Your task to perform on an android device: turn smart compose on in the gmail app Image 0: 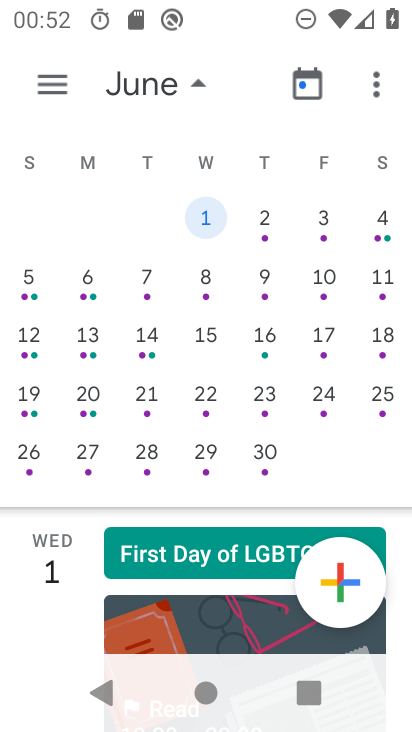
Step 0: press home button
Your task to perform on an android device: turn smart compose on in the gmail app Image 1: 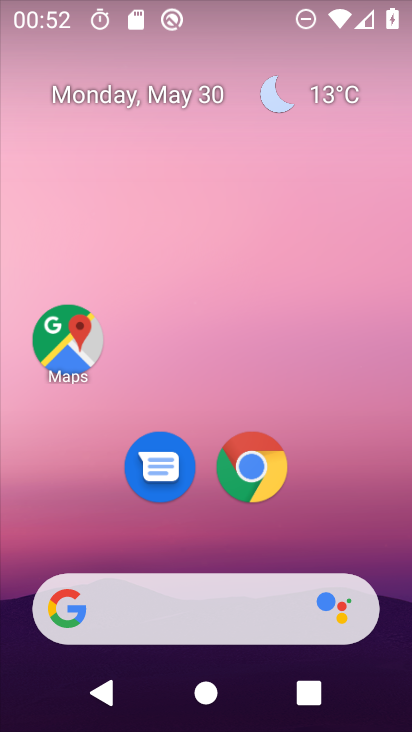
Step 1: drag from (218, 528) to (201, 155)
Your task to perform on an android device: turn smart compose on in the gmail app Image 2: 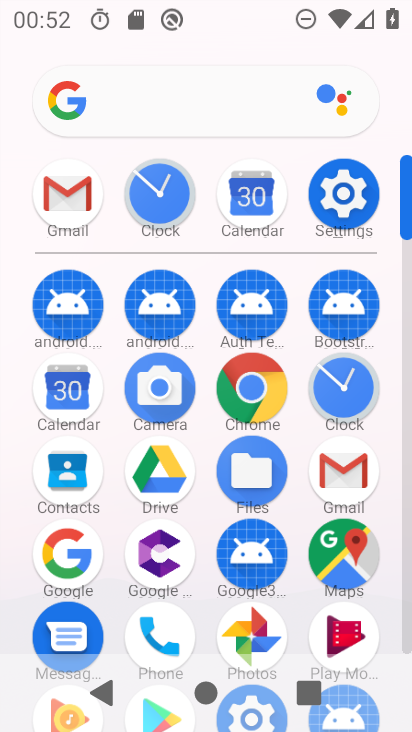
Step 2: click (84, 196)
Your task to perform on an android device: turn smart compose on in the gmail app Image 3: 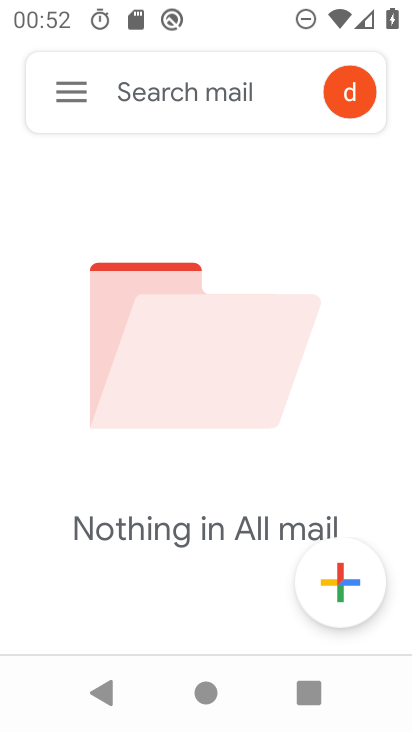
Step 3: click (60, 99)
Your task to perform on an android device: turn smart compose on in the gmail app Image 4: 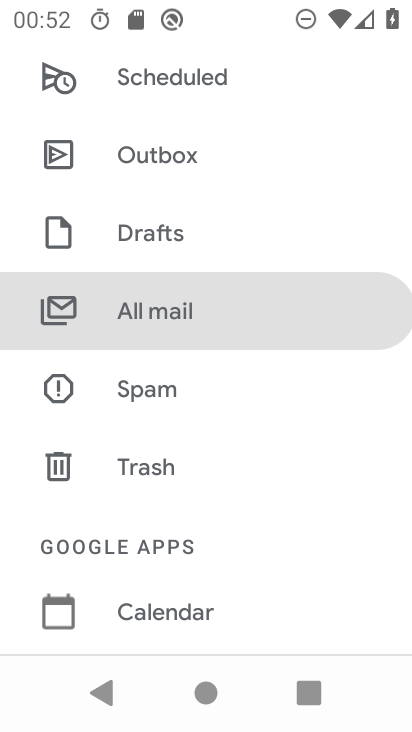
Step 4: drag from (181, 506) to (204, 198)
Your task to perform on an android device: turn smart compose on in the gmail app Image 5: 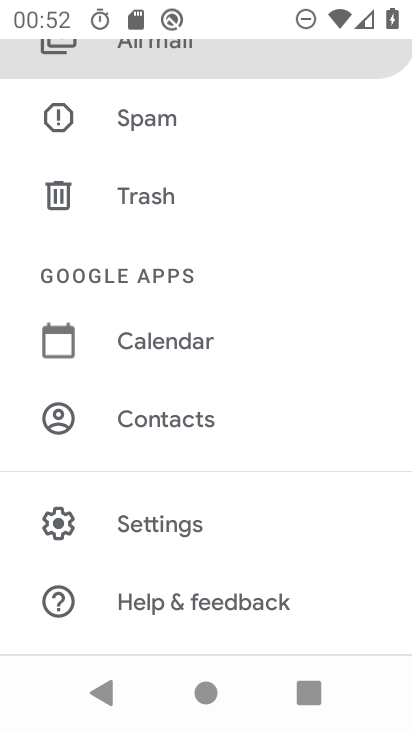
Step 5: drag from (217, 508) to (233, 257)
Your task to perform on an android device: turn smart compose on in the gmail app Image 6: 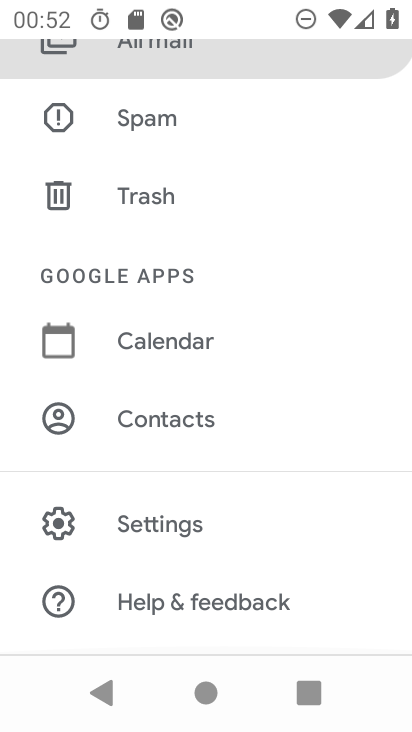
Step 6: click (214, 511)
Your task to perform on an android device: turn smart compose on in the gmail app Image 7: 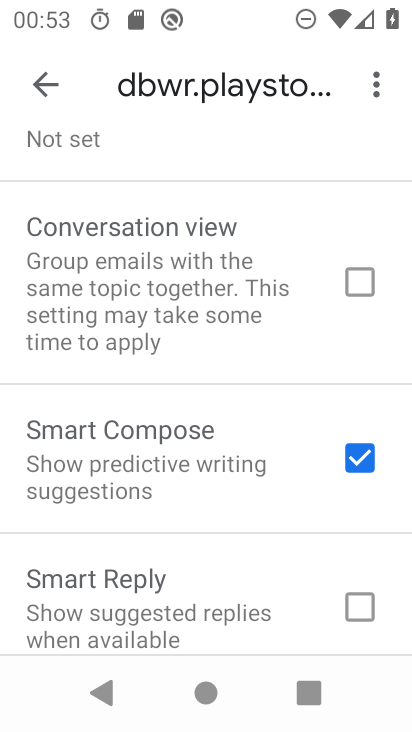
Step 7: task complete